Your task to perform on an android device: Show me recent news Image 0: 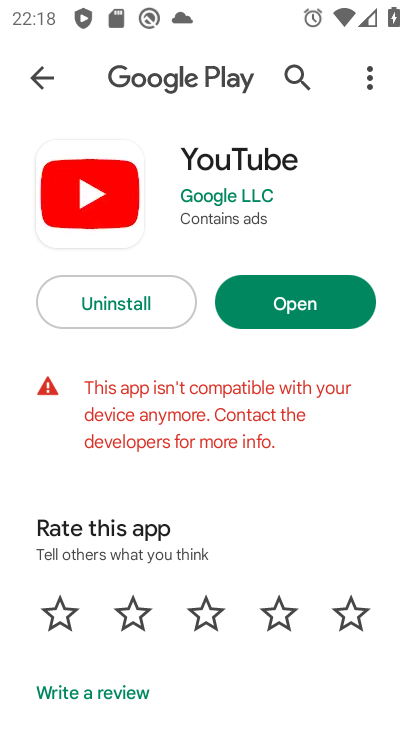
Step 0: press home button
Your task to perform on an android device: Show me recent news Image 1: 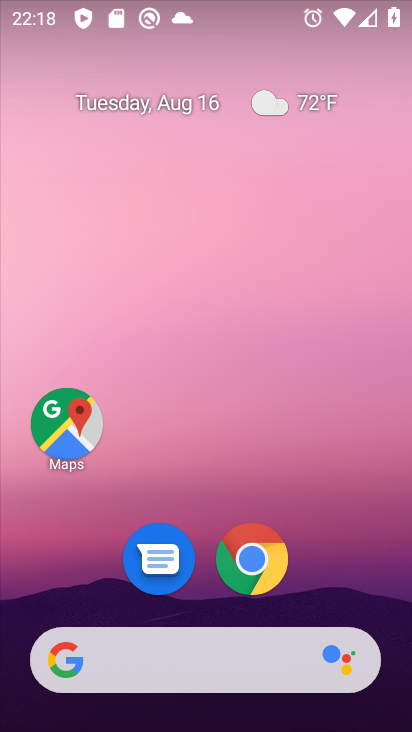
Step 1: drag from (193, 675) to (215, 151)
Your task to perform on an android device: Show me recent news Image 2: 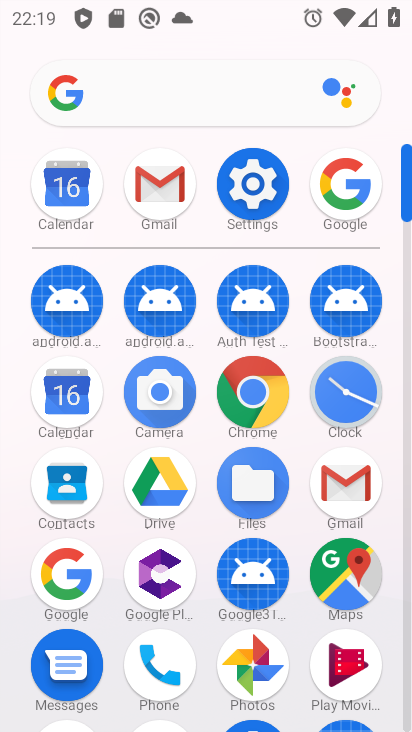
Step 2: click (339, 186)
Your task to perform on an android device: Show me recent news Image 3: 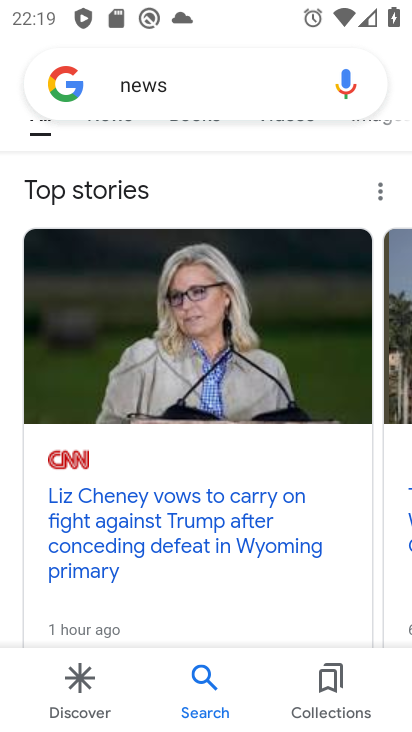
Step 3: click (253, 91)
Your task to perform on an android device: Show me recent news Image 4: 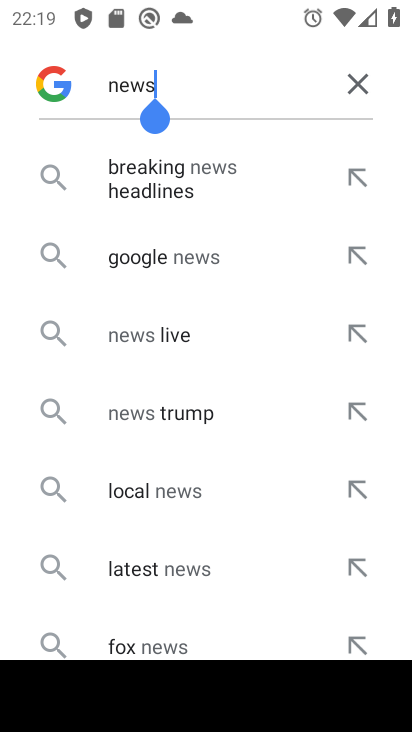
Step 4: click (355, 79)
Your task to perform on an android device: Show me recent news Image 5: 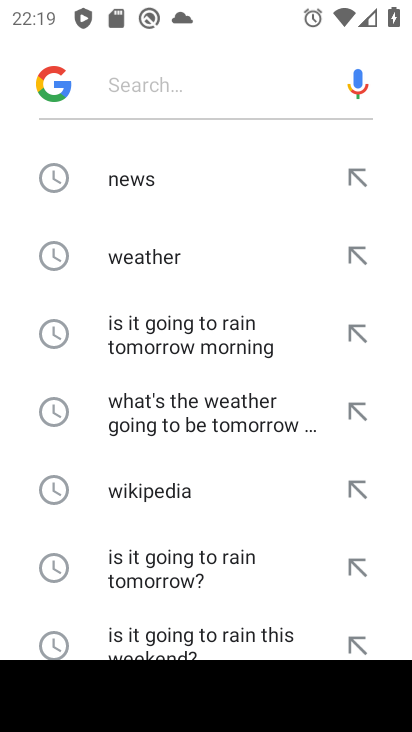
Step 5: type "recent news"
Your task to perform on an android device: Show me recent news Image 6: 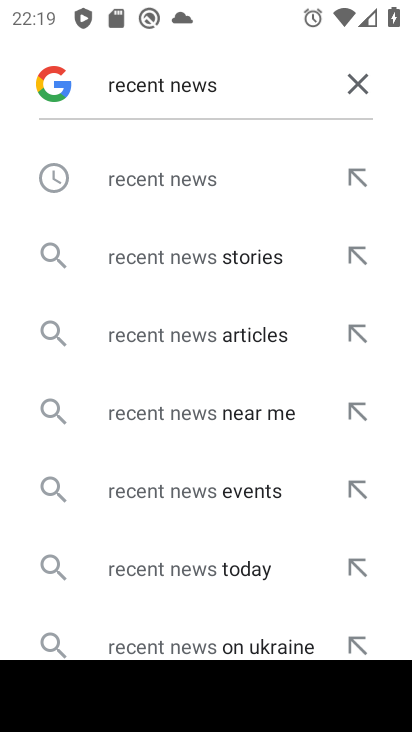
Step 6: click (183, 183)
Your task to perform on an android device: Show me recent news Image 7: 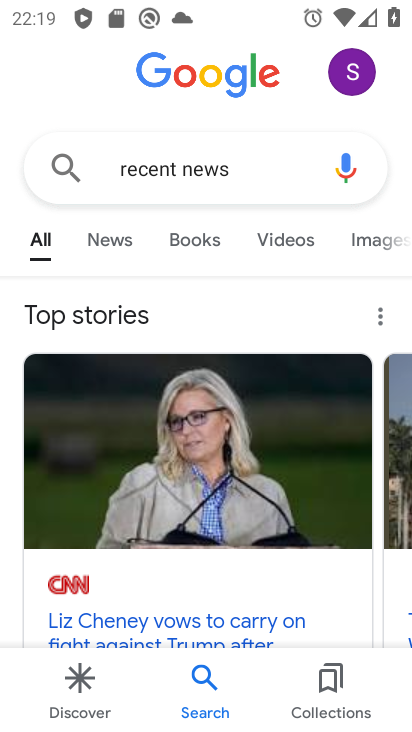
Step 7: task complete